Your task to perform on an android device: toggle priority inbox in the gmail app Image 0: 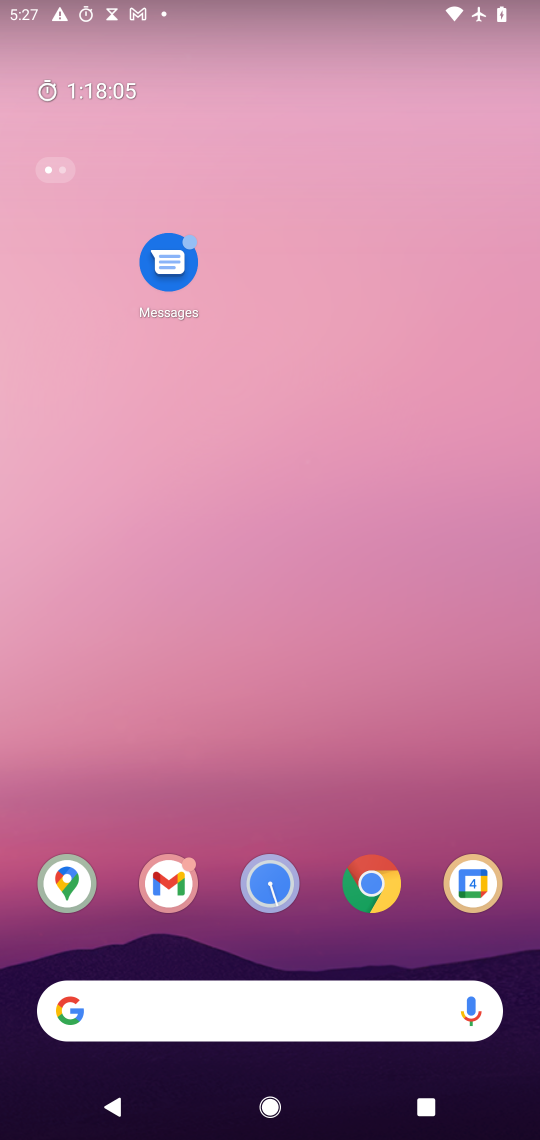
Step 0: drag from (327, 887) to (360, 37)
Your task to perform on an android device: toggle priority inbox in the gmail app Image 1: 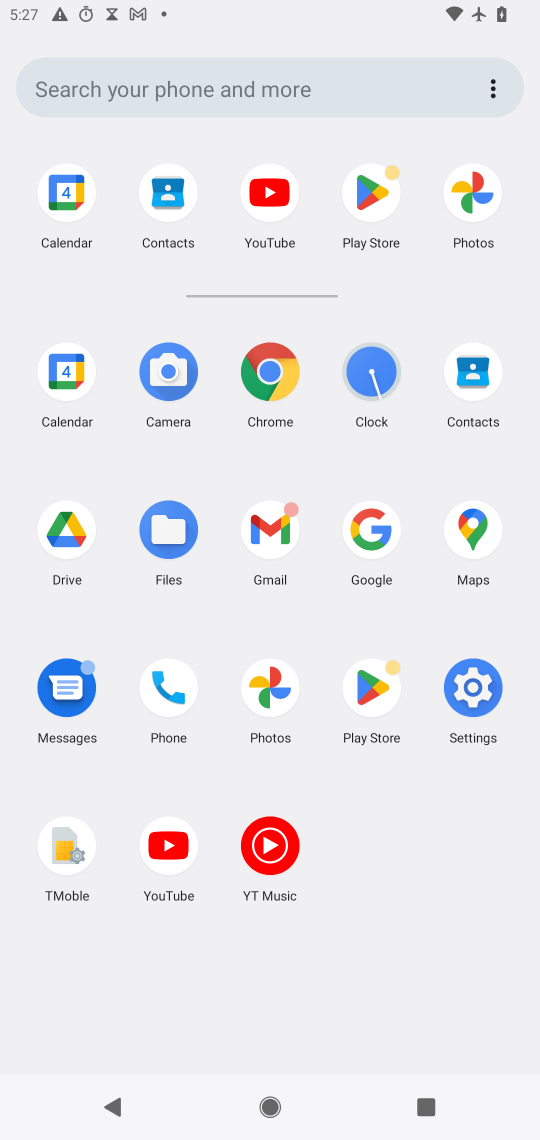
Step 1: click (272, 526)
Your task to perform on an android device: toggle priority inbox in the gmail app Image 2: 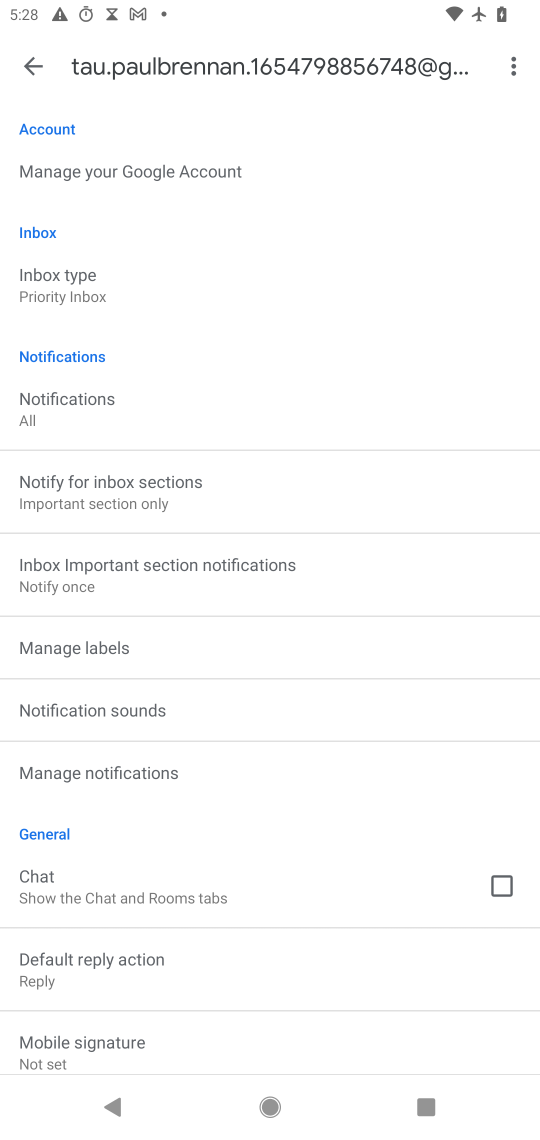
Step 2: click (68, 287)
Your task to perform on an android device: toggle priority inbox in the gmail app Image 3: 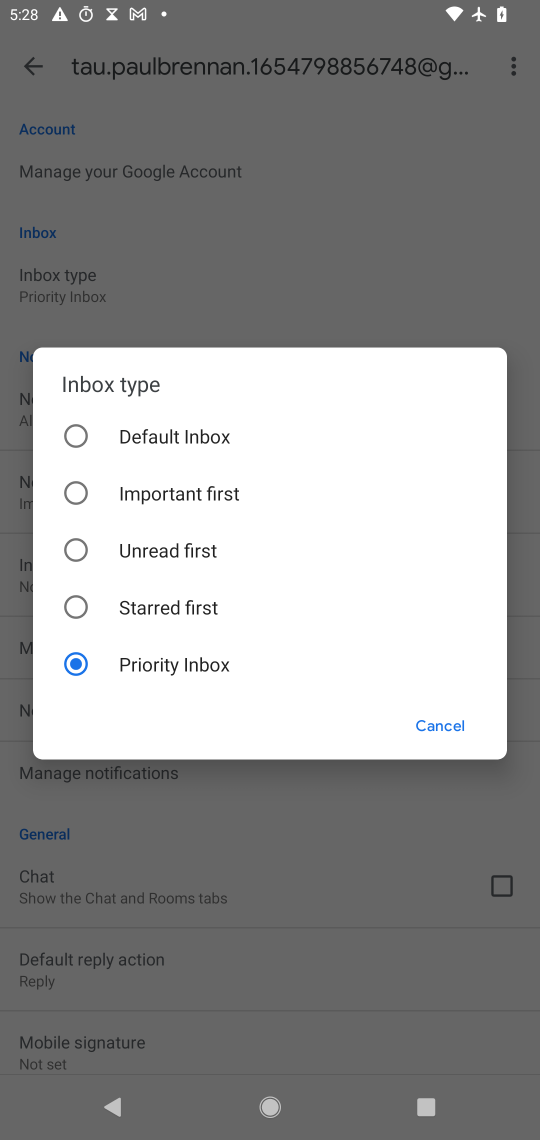
Step 3: click (73, 431)
Your task to perform on an android device: toggle priority inbox in the gmail app Image 4: 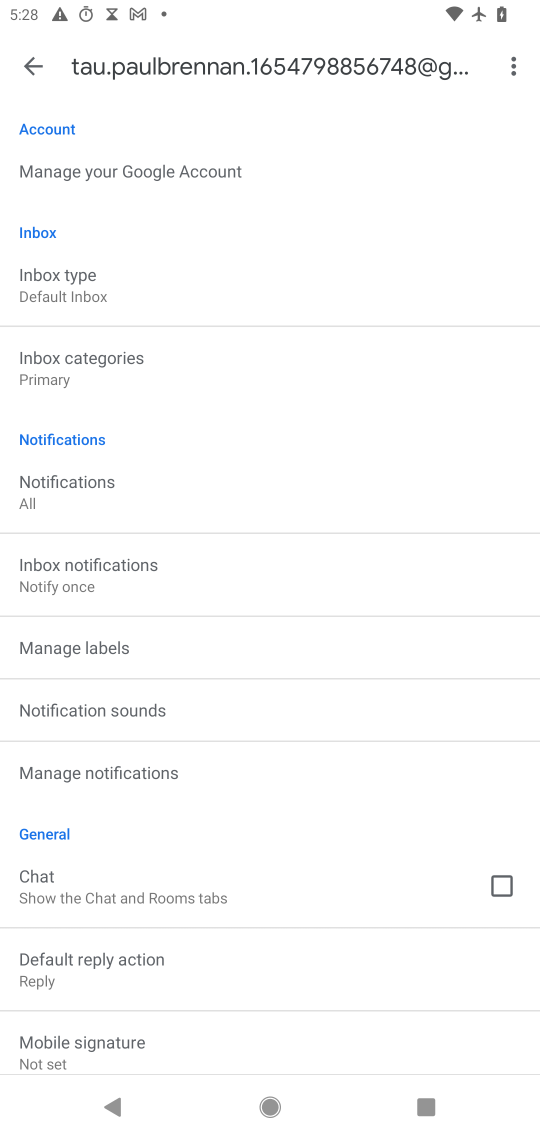
Step 4: task complete